Your task to perform on an android device: Open calendar and show me the first week of next month Image 0: 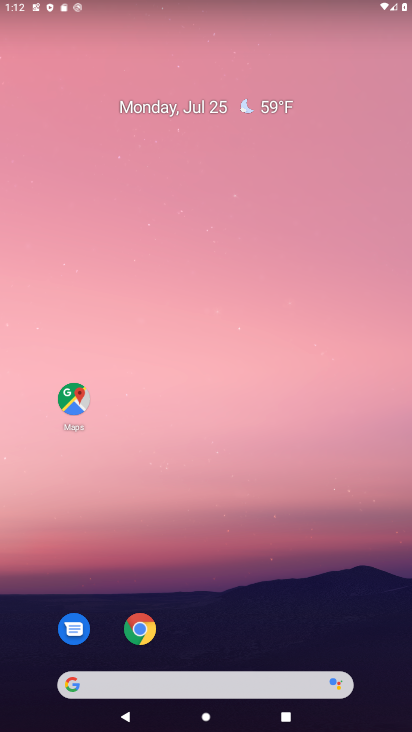
Step 0: drag from (325, 647) to (289, 132)
Your task to perform on an android device: Open calendar and show me the first week of next month Image 1: 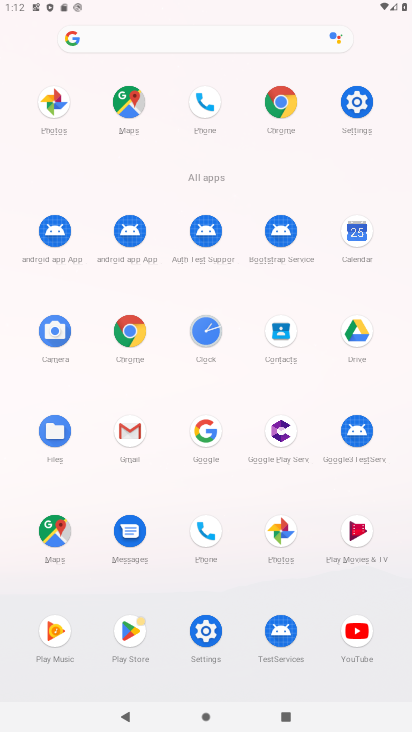
Step 1: drag from (365, 231) to (107, 190)
Your task to perform on an android device: Open calendar and show me the first week of next month Image 2: 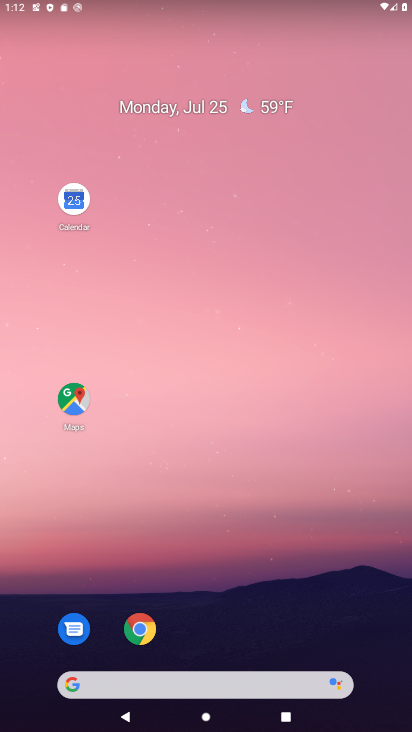
Step 2: click (77, 199)
Your task to perform on an android device: Open calendar and show me the first week of next month Image 3: 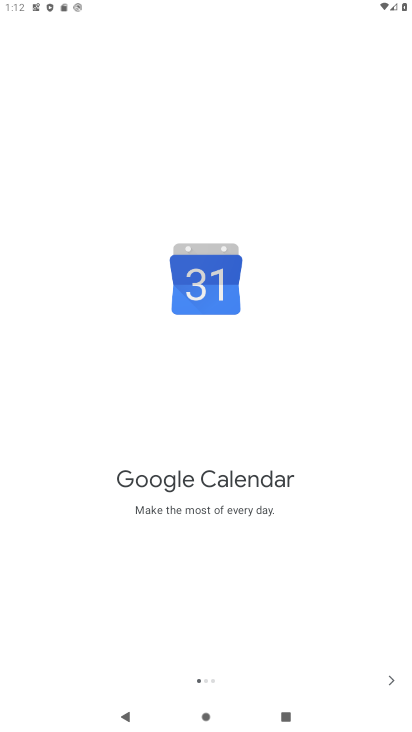
Step 3: click (393, 687)
Your task to perform on an android device: Open calendar and show me the first week of next month Image 4: 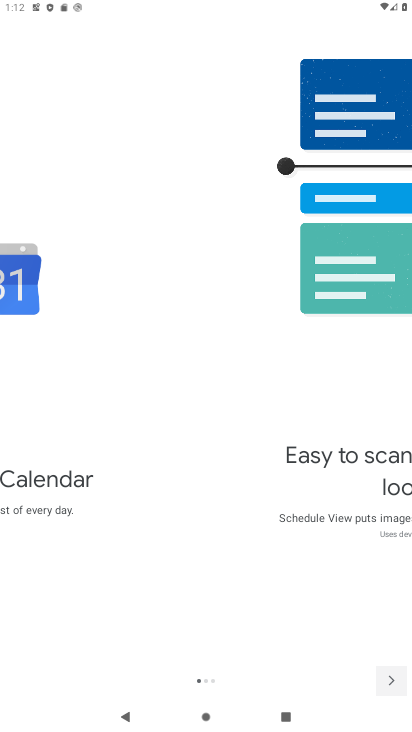
Step 4: click (393, 687)
Your task to perform on an android device: Open calendar and show me the first week of next month Image 5: 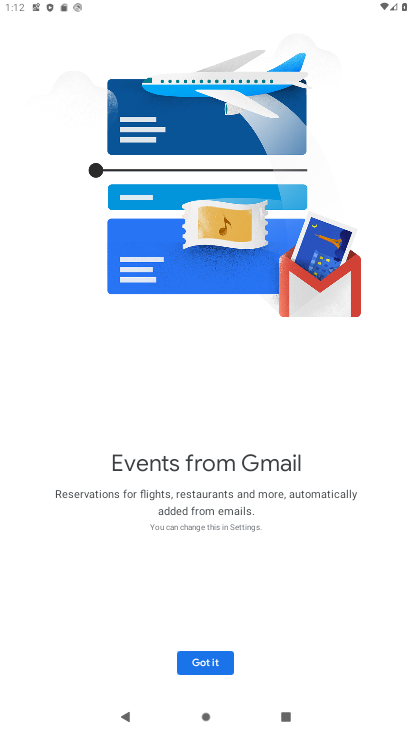
Step 5: click (213, 655)
Your task to perform on an android device: Open calendar and show me the first week of next month Image 6: 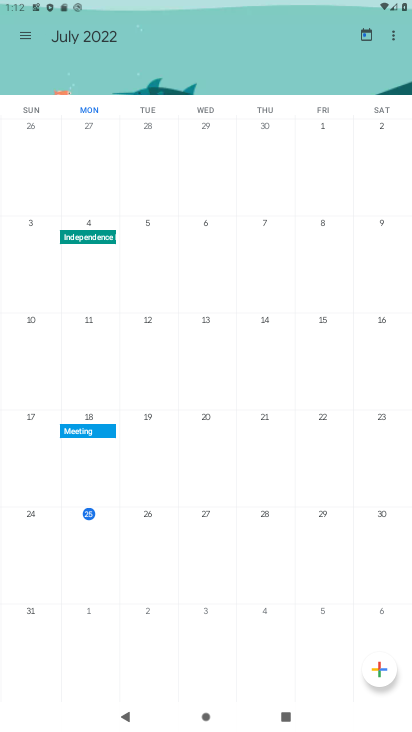
Step 6: click (28, 35)
Your task to perform on an android device: Open calendar and show me the first week of next month Image 7: 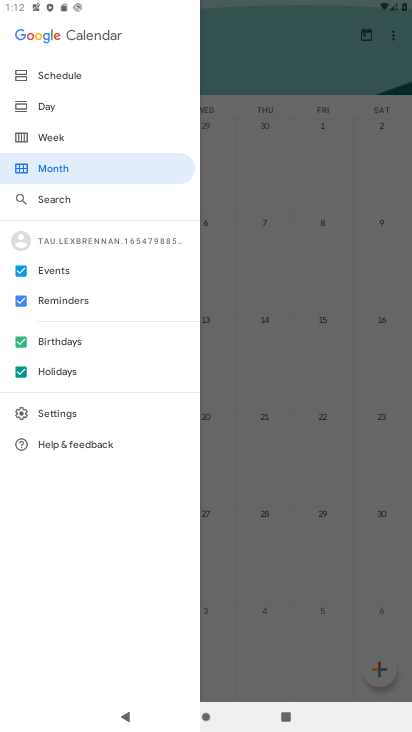
Step 7: click (103, 171)
Your task to perform on an android device: Open calendar and show me the first week of next month Image 8: 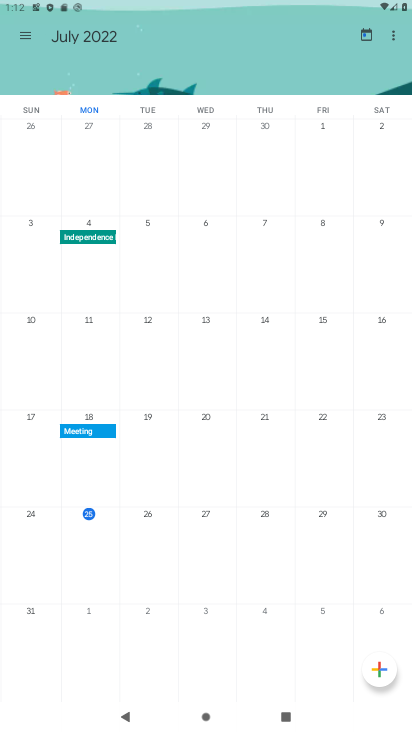
Step 8: click (22, 28)
Your task to perform on an android device: Open calendar and show me the first week of next month Image 9: 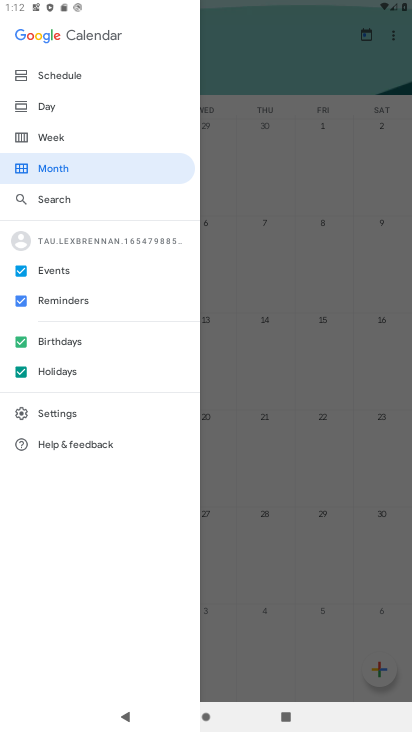
Step 9: click (91, 164)
Your task to perform on an android device: Open calendar and show me the first week of next month Image 10: 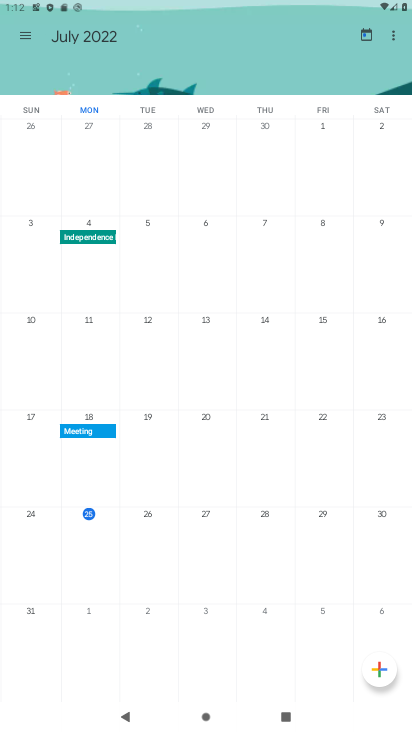
Step 10: drag from (386, 228) to (0, 112)
Your task to perform on an android device: Open calendar and show me the first week of next month Image 11: 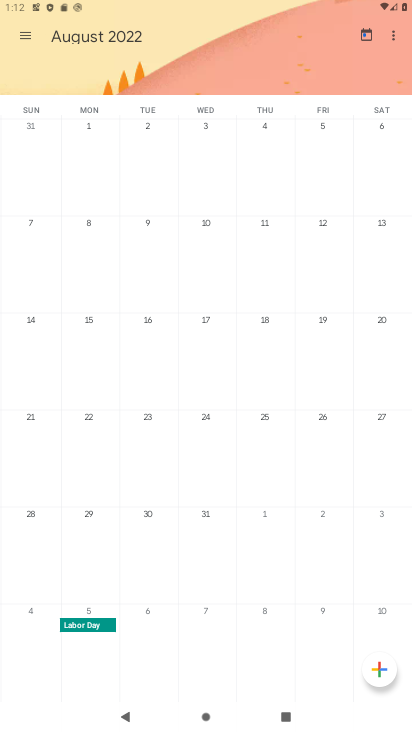
Step 11: click (22, 34)
Your task to perform on an android device: Open calendar and show me the first week of next month Image 12: 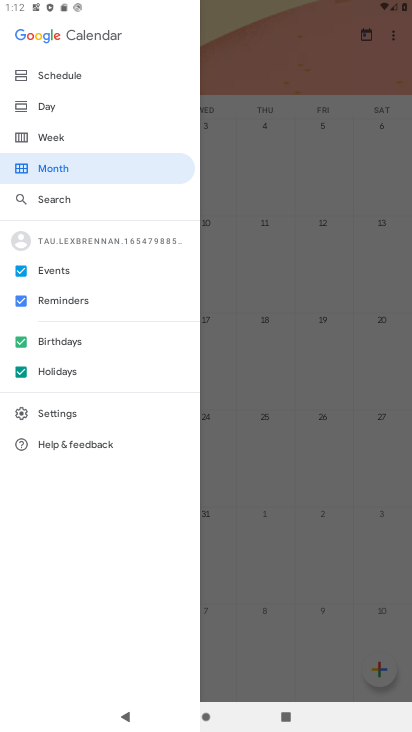
Step 12: click (48, 128)
Your task to perform on an android device: Open calendar and show me the first week of next month Image 13: 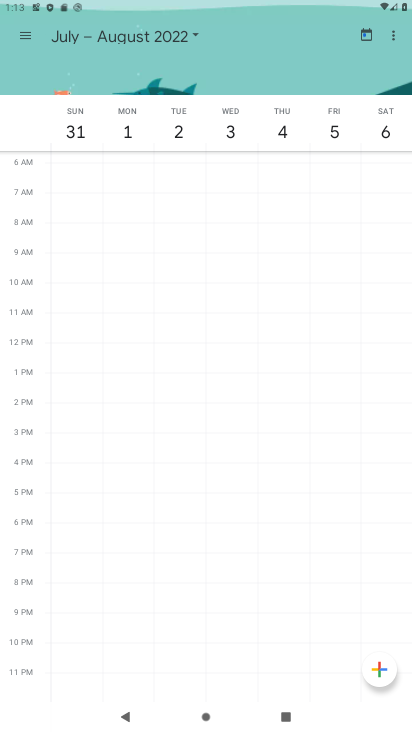
Step 13: task complete